Your task to perform on an android device: Show me popular games on the Play Store Image 0: 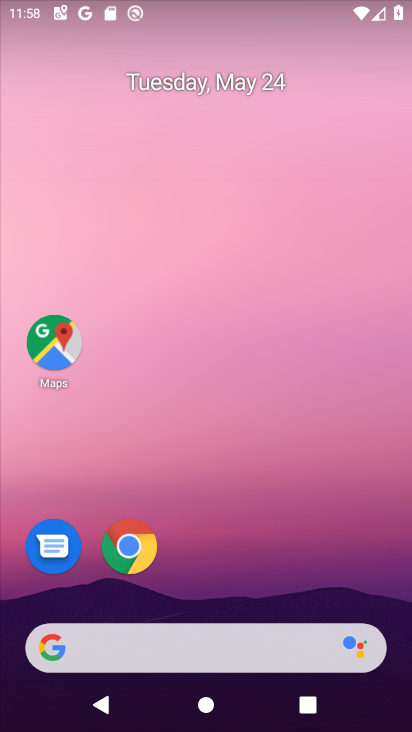
Step 0: drag from (232, 592) to (268, 109)
Your task to perform on an android device: Show me popular games on the Play Store Image 1: 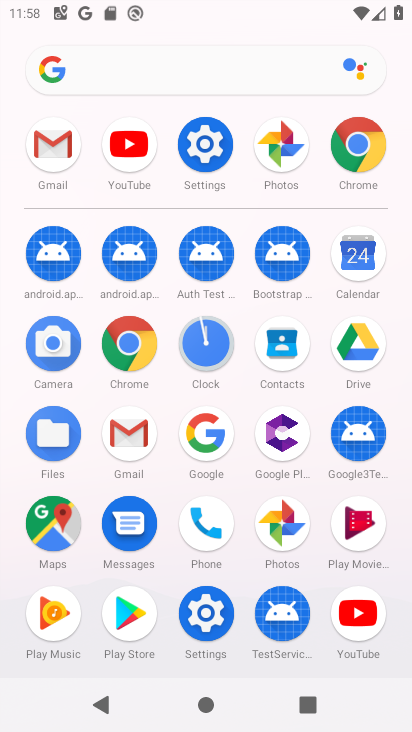
Step 1: click (138, 624)
Your task to perform on an android device: Show me popular games on the Play Store Image 2: 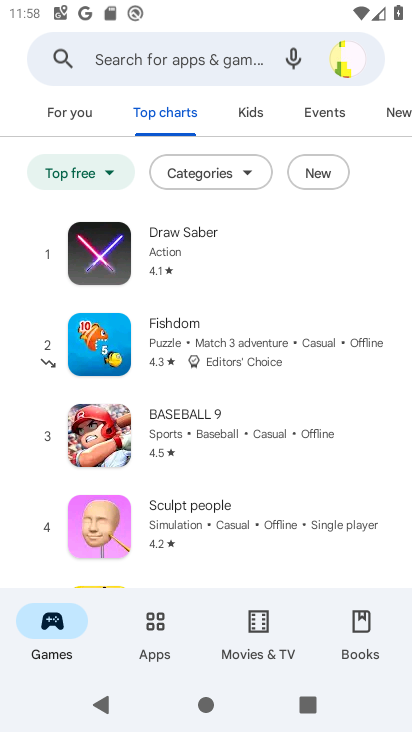
Step 2: task complete